Your task to perform on an android device: stop showing notifications on the lock screen Image 0: 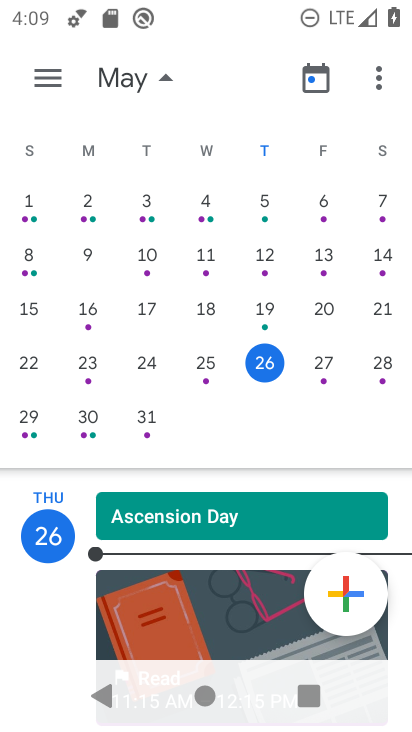
Step 0: press home button
Your task to perform on an android device: stop showing notifications on the lock screen Image 1: 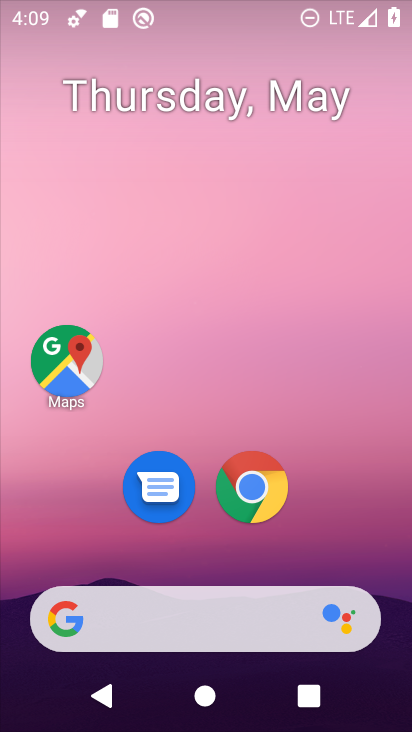
Step 1: drag from (245, 573) to (274, 42)
Your task to perform on an android device: stop showing notifications on the lock screen Image 2: 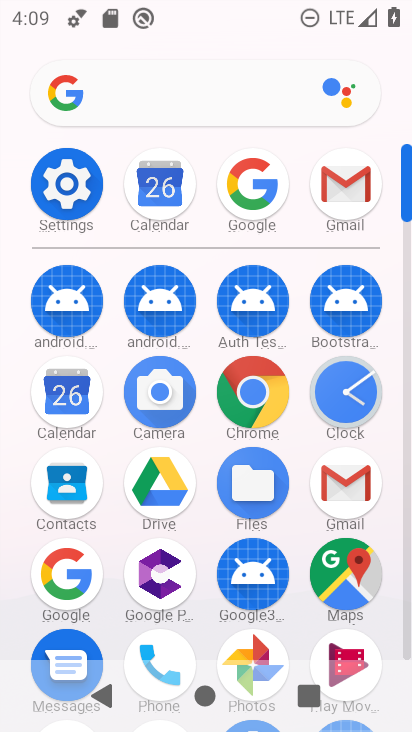
Step 2: click (83, 183)
Your task to perform on an android device: stop showing notifications on the lock screen Image 3: 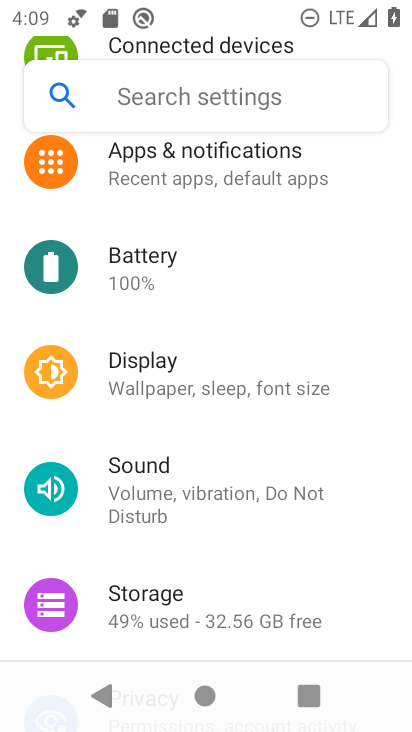
Step 3: click (246, 190)
Your task to perform on an android device: stop showing notifications on the lock screen Image 4: 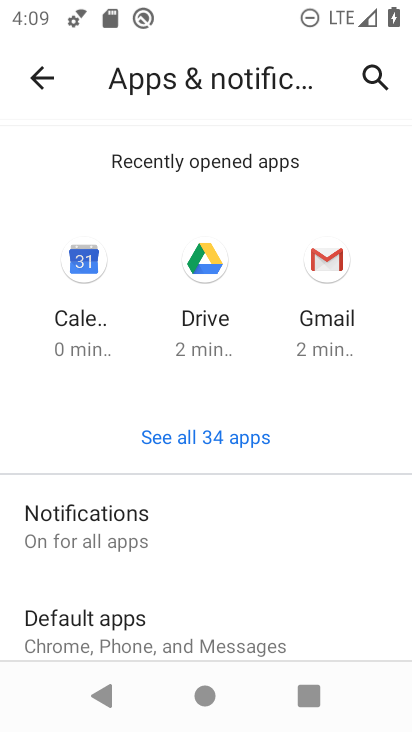
Step 4: drag from (214, 499) to (252, 296)
Your task to perform on an android device: stop showing notifications on the lock screen Image 5: 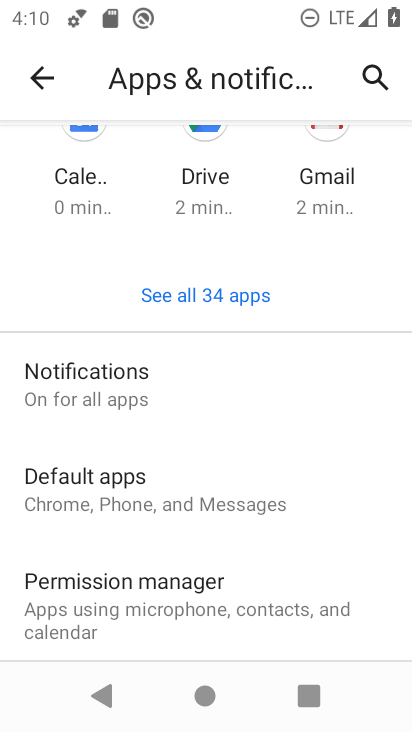
Step 5: click (180, 399)
Your task to perform on an android device: stop showing notifications on the lock screen Image 6: 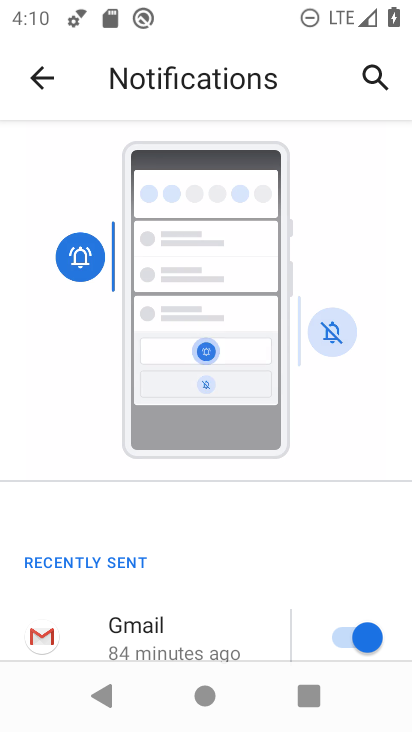
Step 6: drag from (211, 551) to (302, 63)
Your task to perform on an android device: stop showing notifications on the lock screen Image 7: 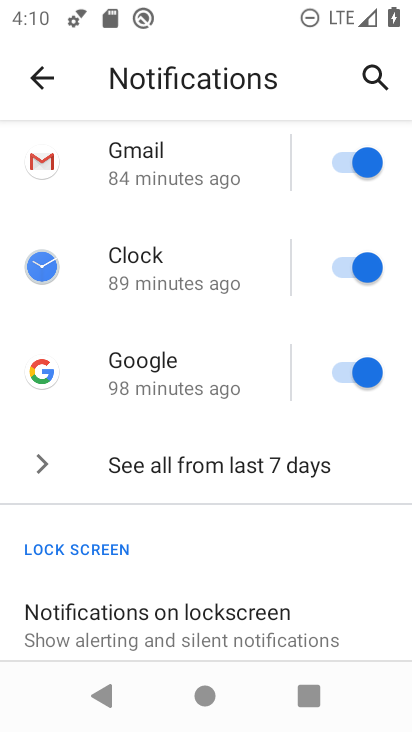
Step 7: drag from (219, 530) to (294, 252)
Your task to perform on an android device: stop showing notifications on the lock screen Image 8: 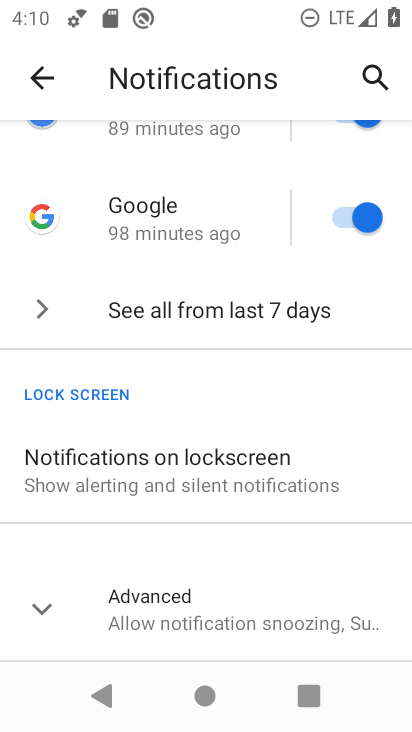
Step 8: drag from (242, 549) to (311, 356)
Your task to perform on an android device: stop showing notifications on the lock screen Image 9: 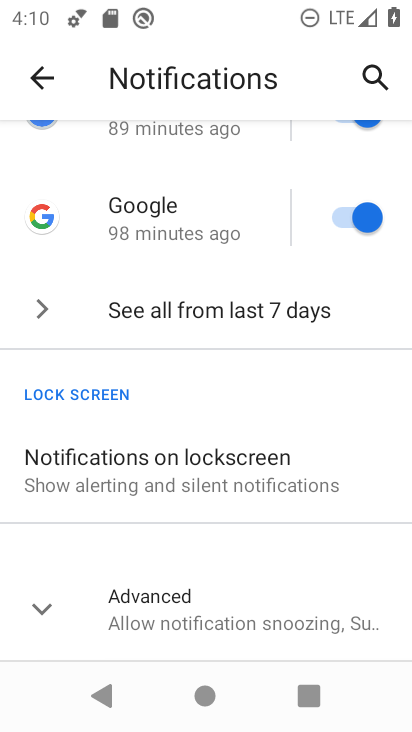
Step 9: click (233, 465)
Your task to perform on an android device: stop showing notifications on the lock screen Image 10: 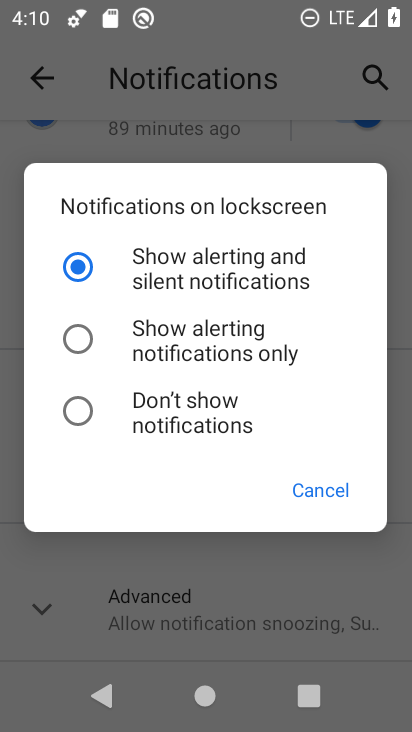
Step 10: click (123, 413)
Your task to perform on an android device: stop showing notifications on the lock screen Image 11: 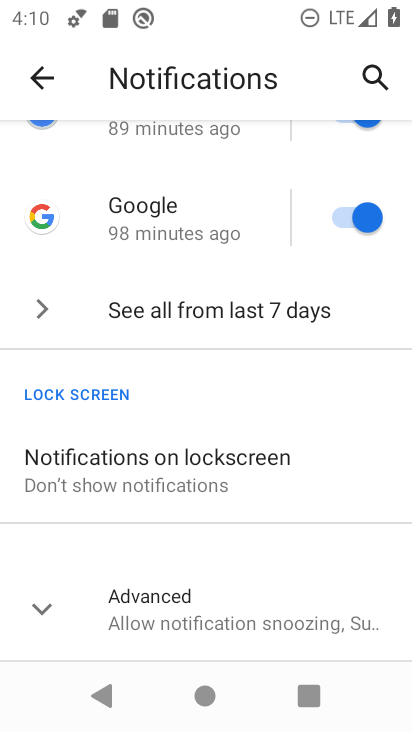
Step 11: task complete